Your task to perform on an android device: Go to Amazon Image 0: 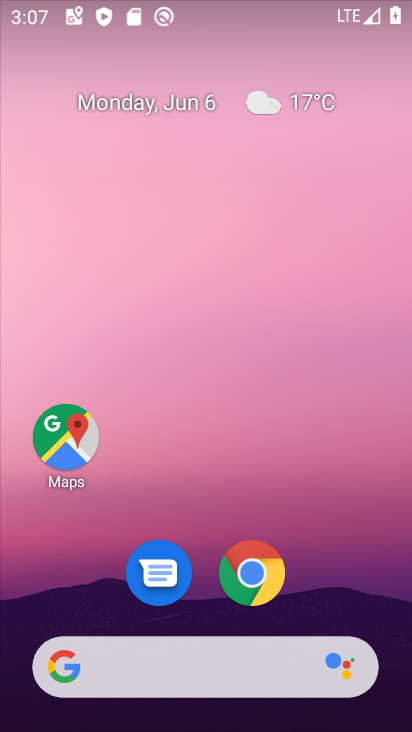
Step 0: drag from (341, 593) to (360, 176)
Your task to perform on an android device: Go to Amazon Image 1: 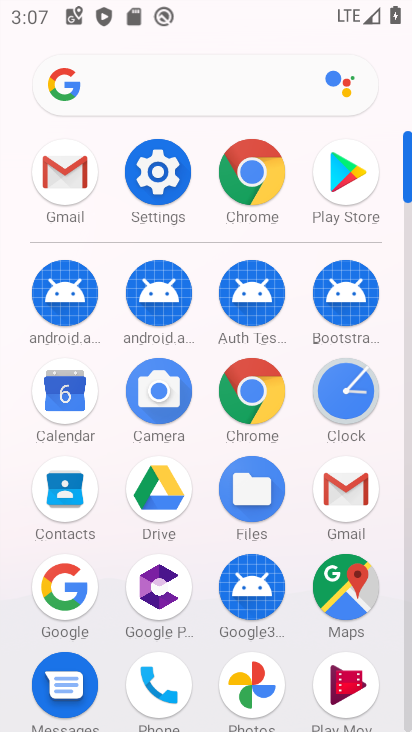
Step 1: click (262, 404)
Your task to perform on an android device: Go to Amazon Image 2: 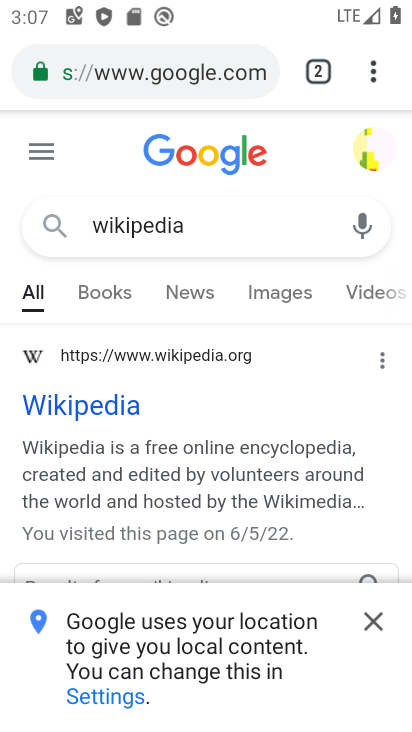
Step 2: click (235, 72)
Your task to perform on an android device: Go to Amazon Image 3: 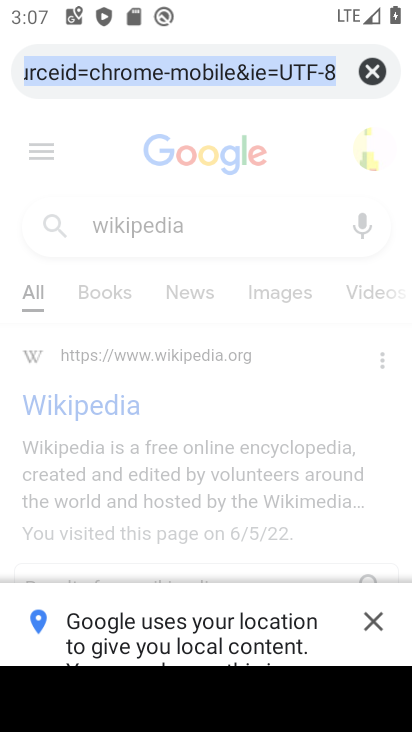
Step 3: click (352, 67)
Your task to perform on an android device: Go to Amazon Image 4: 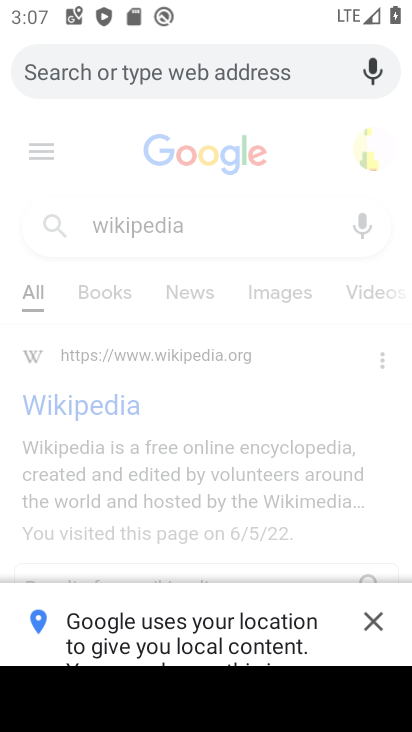
Step 4: type "amazon"
Your task to perform on an android device: Go to Amazon Image 5: 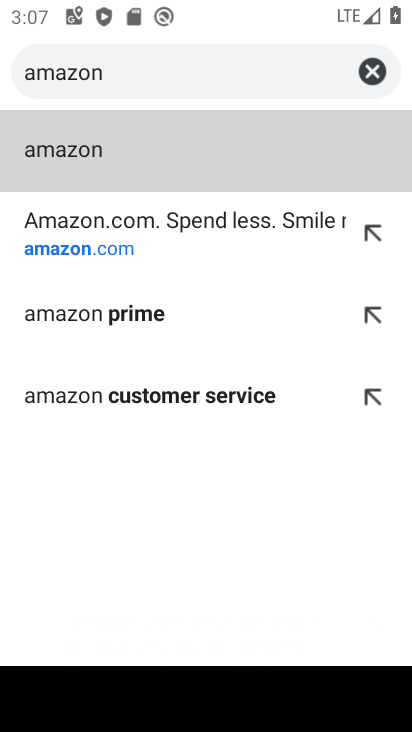
Step 5: click (163, 167)
Your task to perform on an android device: Go to Amazon Image 6: 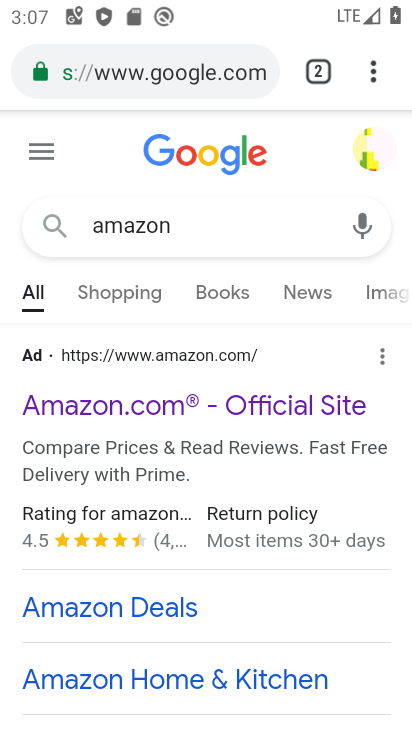
Step 6: task complete